Your task to perform on an android device: toggle wifi Image 0: 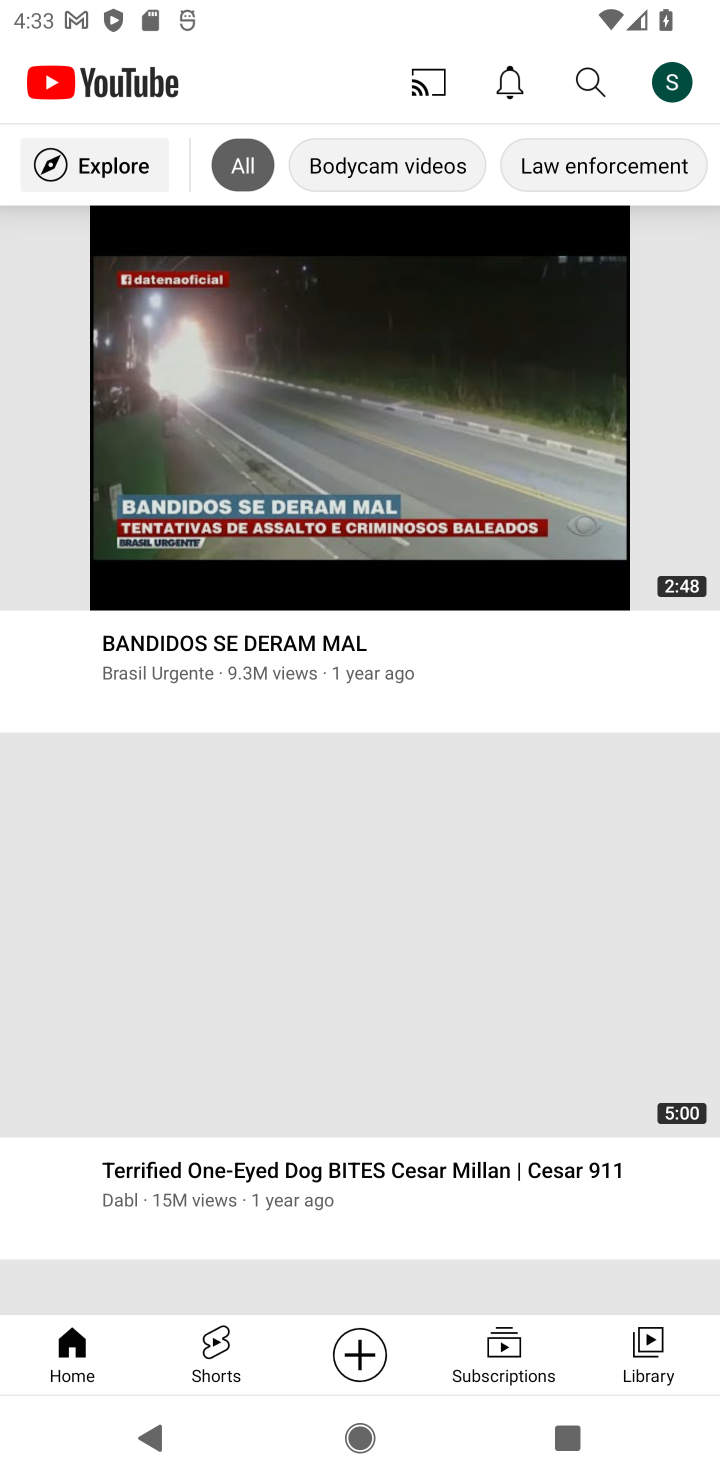
Step 0: press home button
Your task to perform on an android device: toggle wifi Image 1: 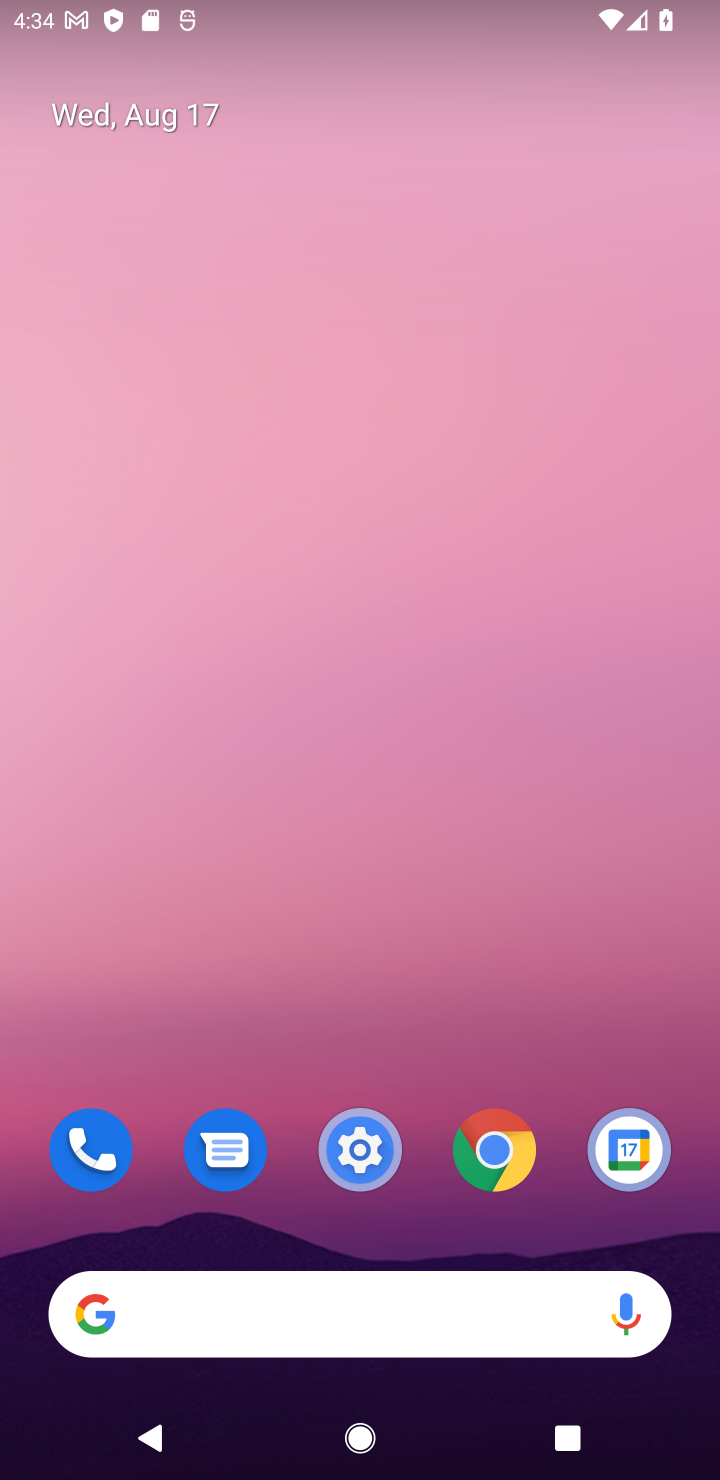
Step 1: drag from (307, 14) to (481, 1066)
Your task to perform on an android device: toggle wifi Image 2: 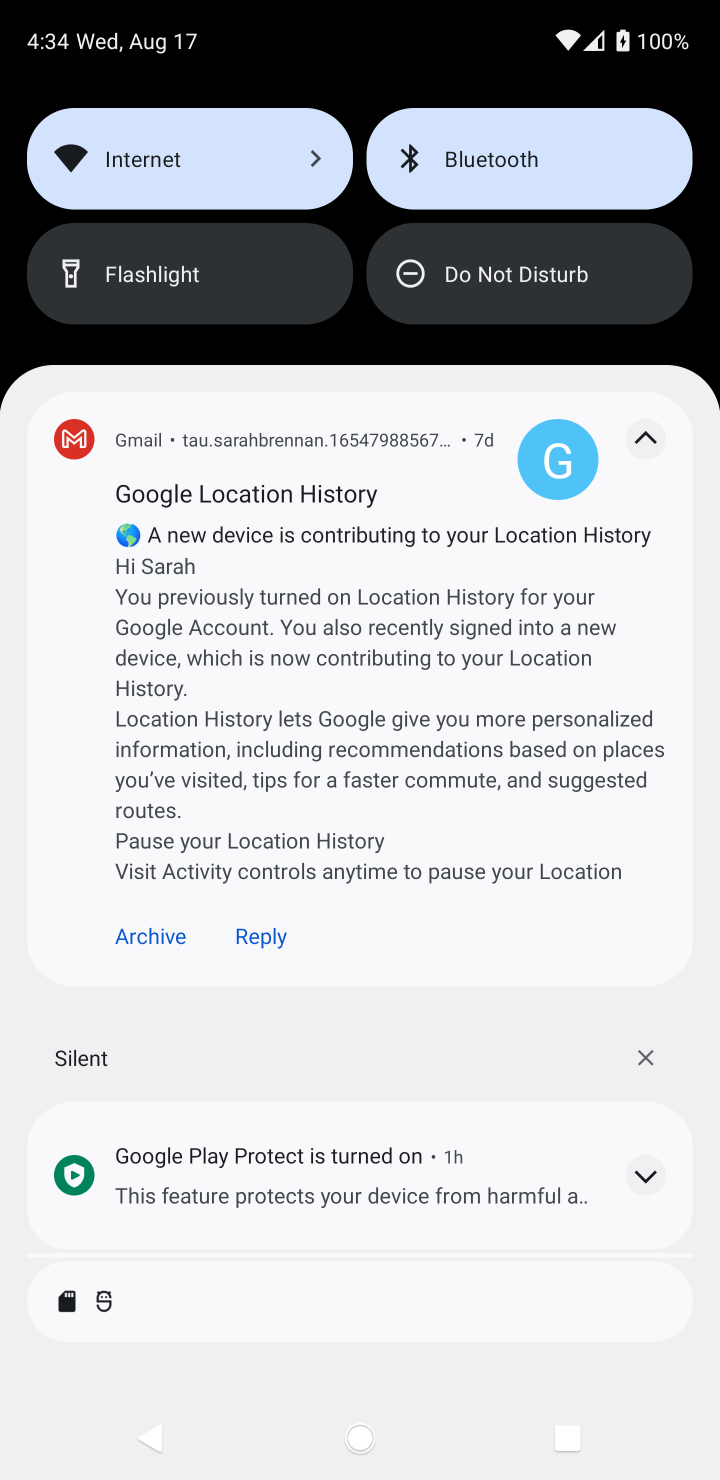
Step 2: drag from (346, 322) to (353, 1234)
Your task to perform on an android device: toggle wifi Image 3: 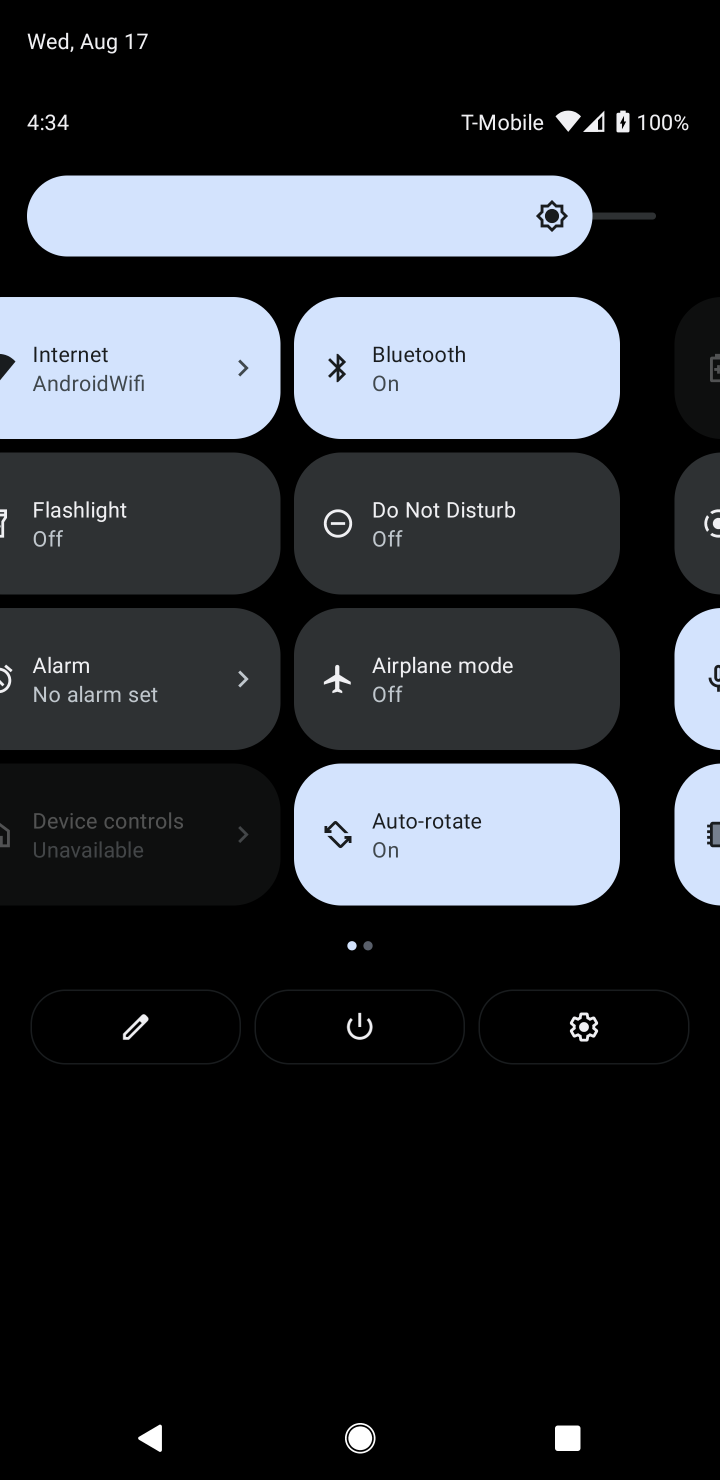
Step 3: click (150, 381)
Your task to perform on an android device: toggle wifi Image 4: 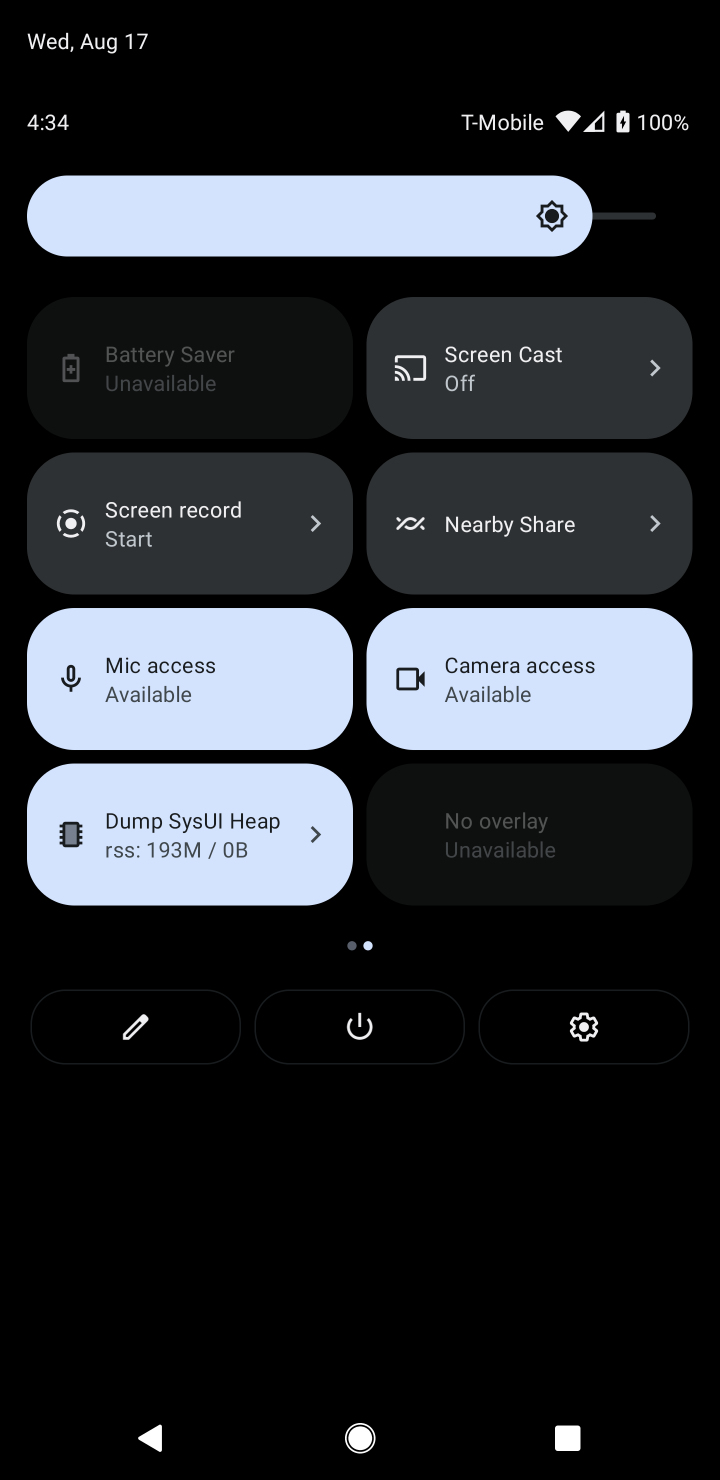
Step 4: task complete